Your task to perform on an android device: Find coffee shops on Maps Image 0: 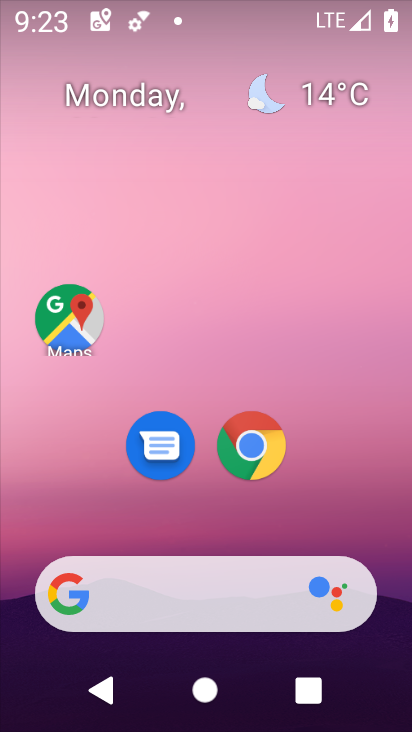
Step 0: click (72, 323)
Your task to perform on an android device: Find coffee shops on Maps Image 1: 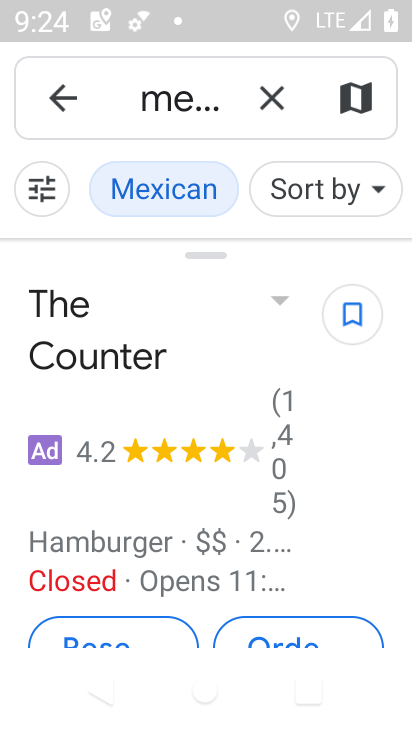
Step 1: click (275, 107)
Your task to perform on an android device: Find coffee shops on Maps Image 2: 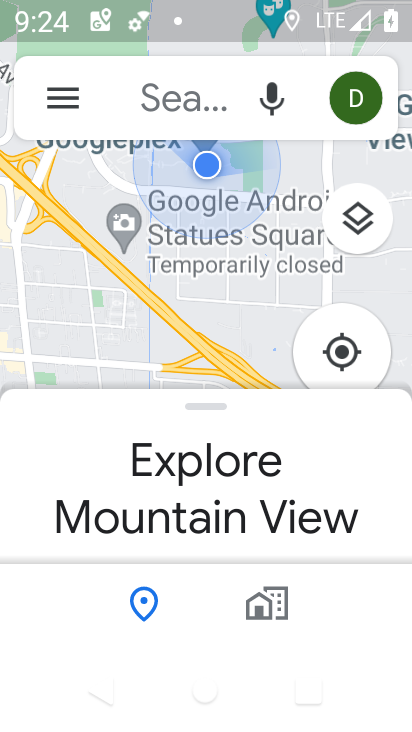
Step 2: click (138, 96)
Your task to perform on an android device: Find coffee shops on Maps Image 3: 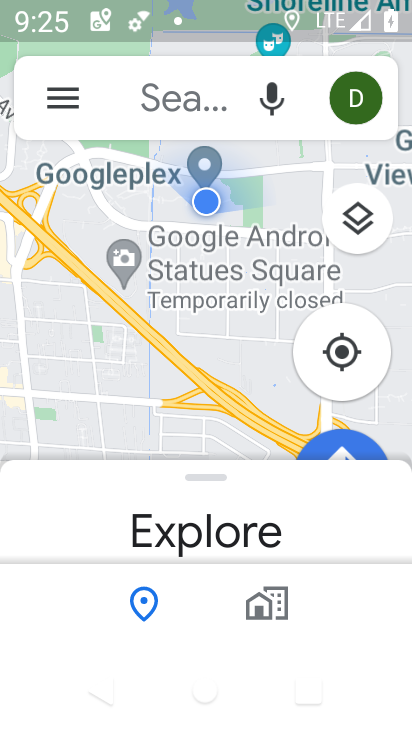
Step 3: click (124, 91)
Your task to perform on an android device: Find coffee shops on Maps Image 4: 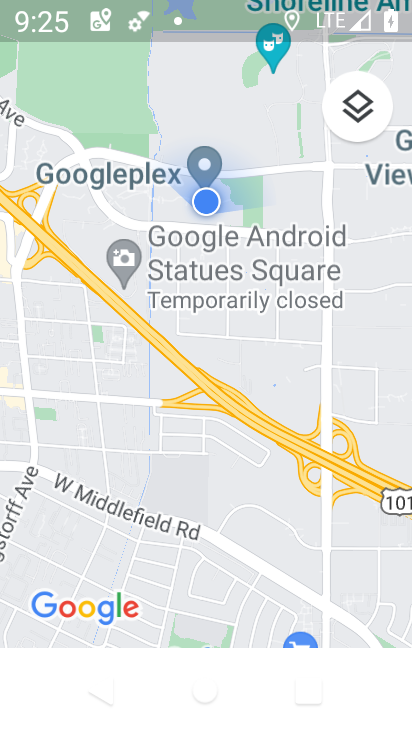
Step 4: press back button
Your task to perform on an android device: Find coffee shops on Maps Image 5: 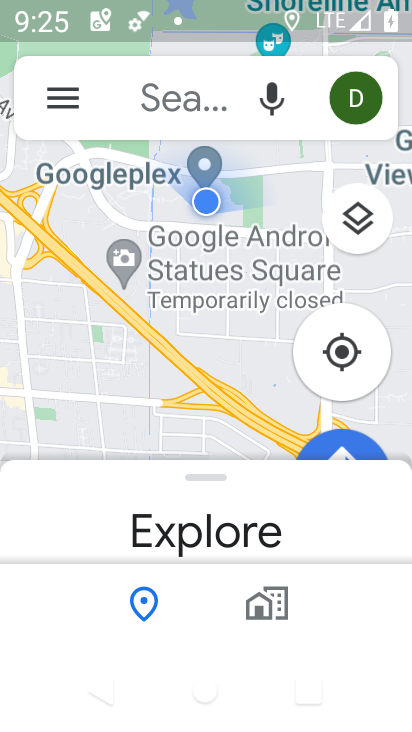
Step 5: click (178, 92)
Your task to perform on an android device: Find coffee shops on Maps Image 6: 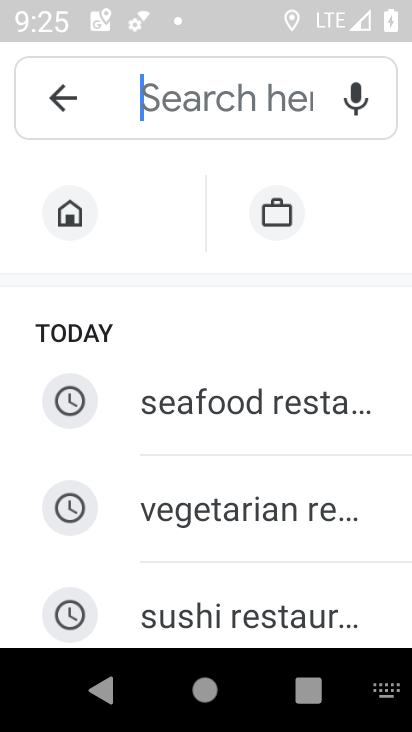
Step 6: click (180, 83)
Your task to perform on an android device: Find coffee shops on Maps Image 7: 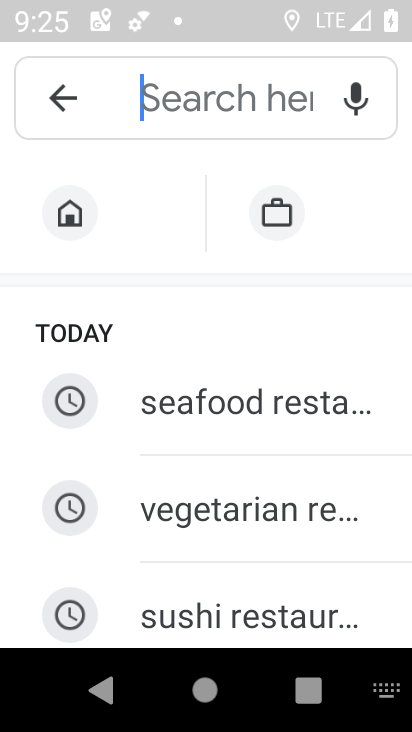
Step 7: type "coffee"
Your task to perform on an android device: Find coffee shops on Maps Image 8: 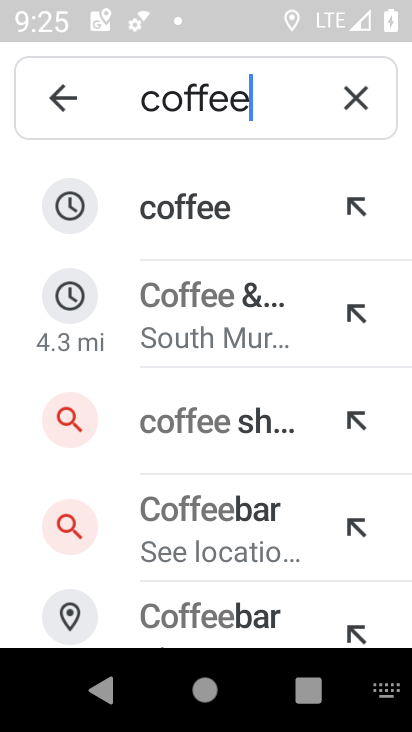
Step 8: click (190, 205)
Your task to perform on an android device: Find coffee shops on Maps Image 9: 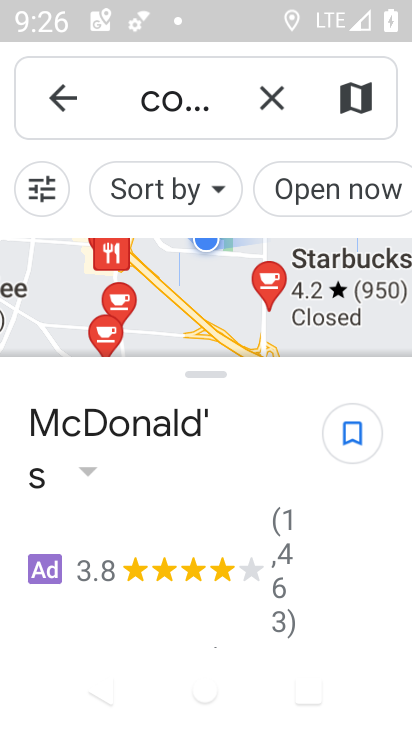
Step 9: task complete